Your task to perform on an android device: check google app version Image 0: 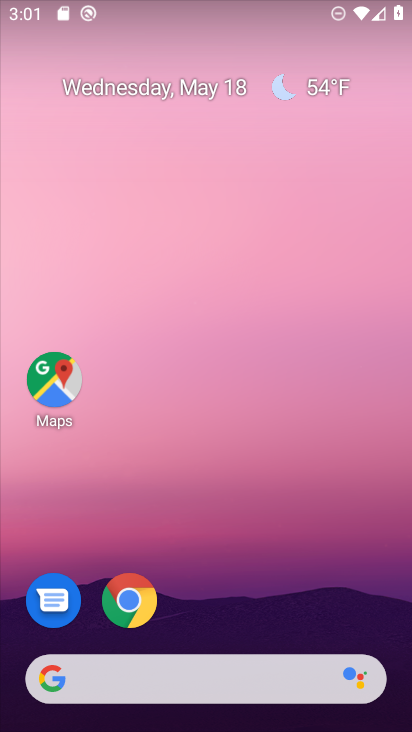
Step 0: click (193, 679)
Your task to perform on an android device: check google app version Image 1: 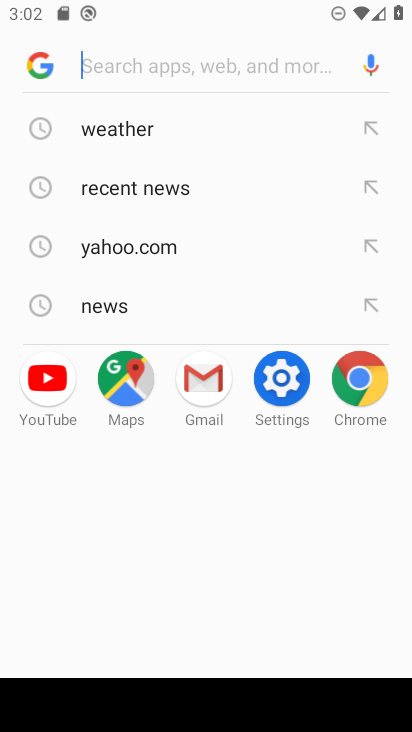
Step 1: click (42, 75)
Your task to perform on an android device: check google app version Image 2: 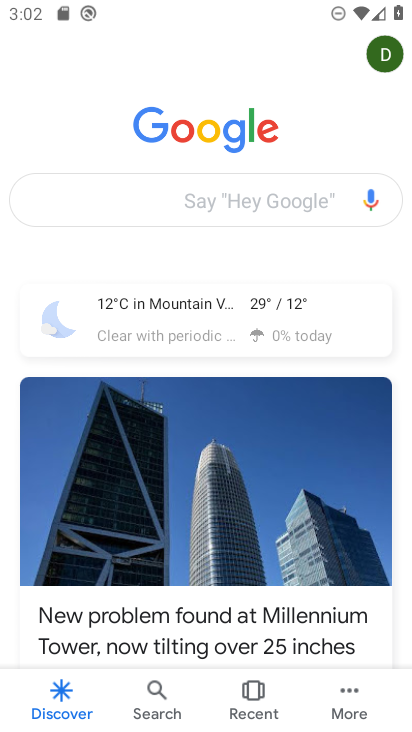
Step 2: click (348, 690)
Your task to perform on an android device: check google app version Image 3: 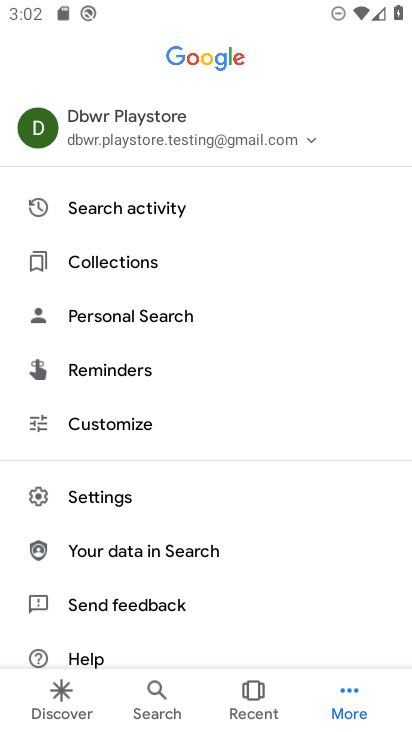
Step 3: click (104, 496)
Your task to perform on an android device: check google app version Image 4: 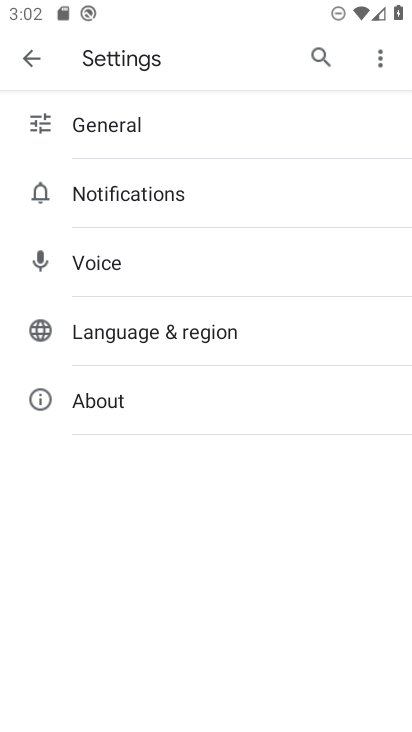
Step 4: click (121, 406)
Your task to perform on an android device: check google app version Image 5: 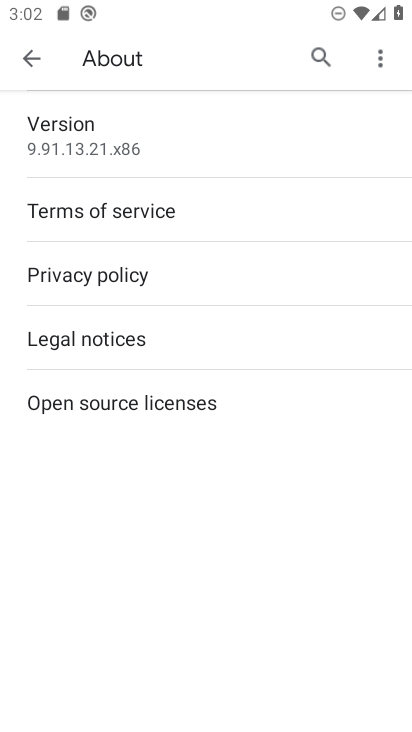
Step 5: task complete